Your task to perform on an android device: set the stopwatch Image 0: 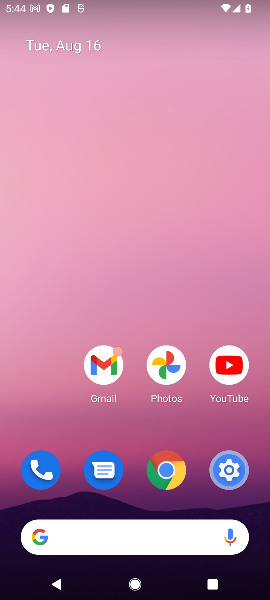
Step 0: drag from (137, 478) to (140, 55)
Your task to perform on an android device: set the stopwatch Image 1: 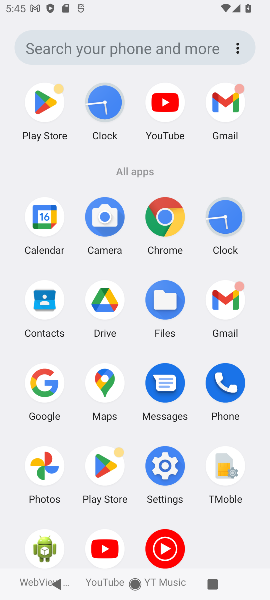
Step 1: click (227, 221)
Your task to perform on an android device: set the stopwatch Image 2: 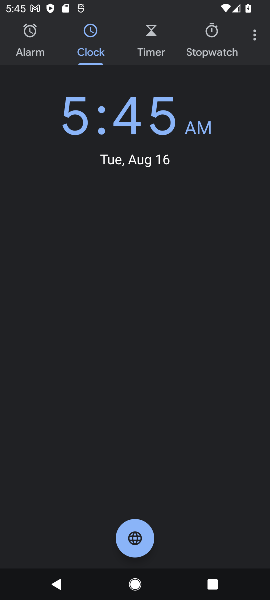
Step 2: press home button
Your task to perform on an android device: set the stopwatch Image 3: 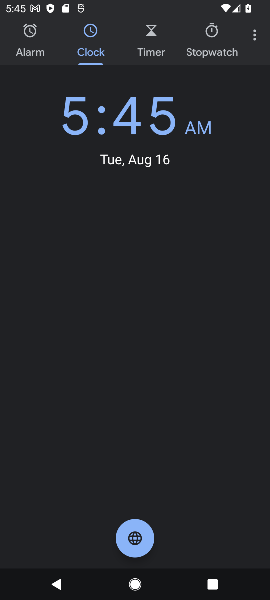
Step 3: press home button
Your task to perform on an android device: set the stopwatch Image 4: 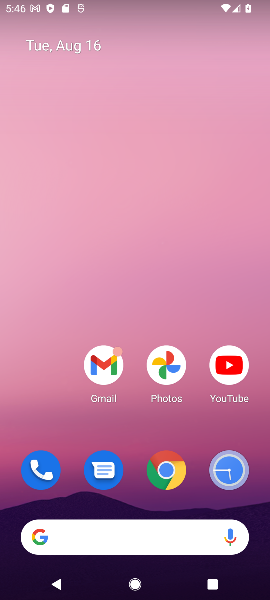
Step 4: click (220, 468)
Your task to perform on an android device: set the stopwatch Image 5: 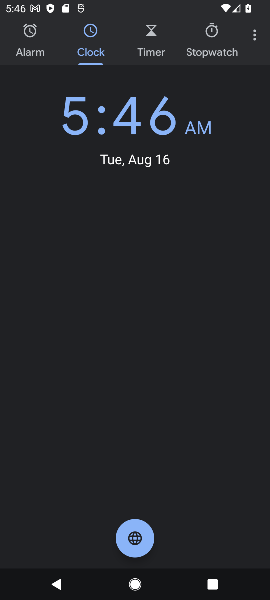
Step 5: click (212, 35)
Your task to perform on an android device: set the stopwatch Image 6: 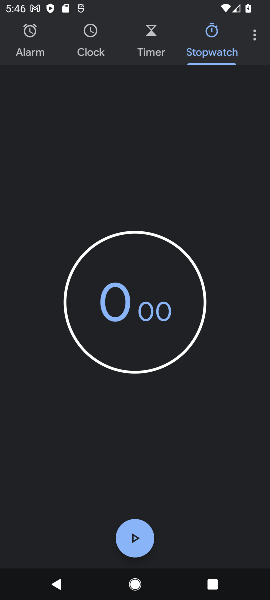
Step 6: click (138, 550)
Your task to perform on an android device: set the stopwatch Image 7: 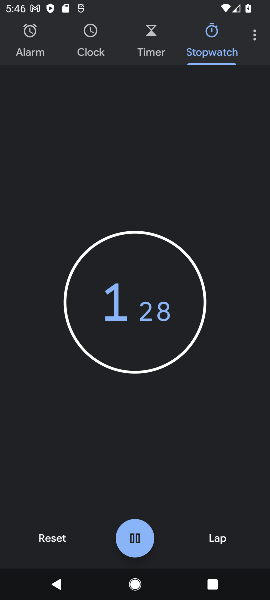
Step 7: task complete